Your task to perform on an android device: snooze an email in the gmail app Image 0: 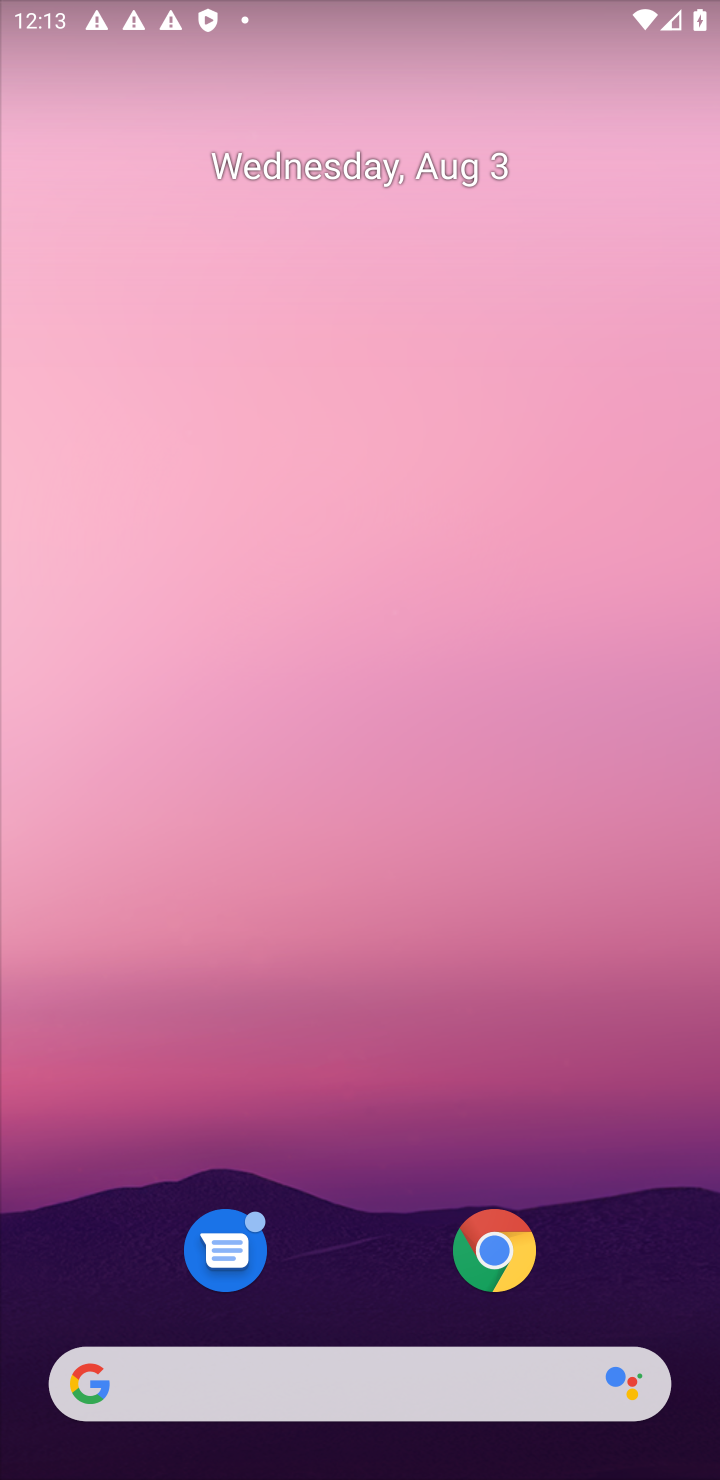
Step 0: drag from (380, 1258) to (356, 547)
Your task to perform on an android device: snooze an email in the gmail app Image 1: 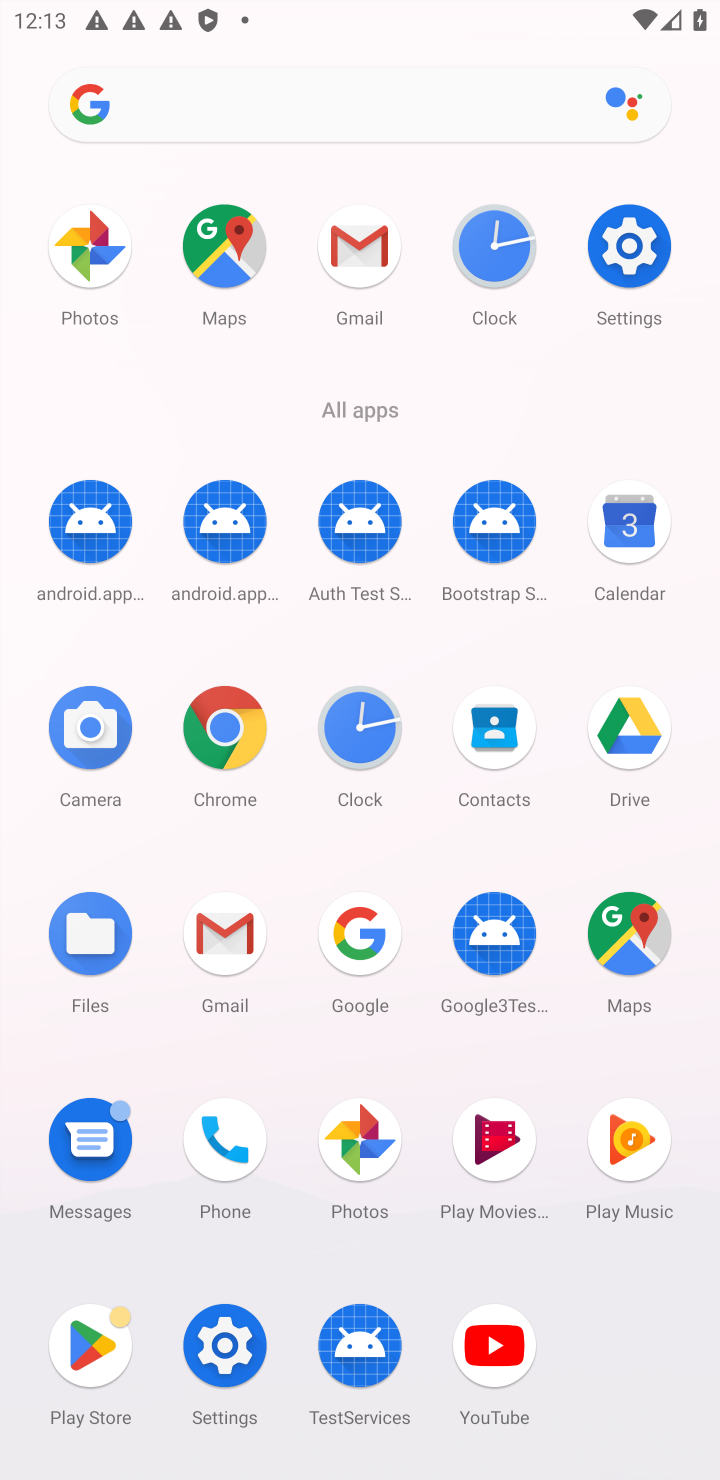
Step 1: click (219, 916)
Your task to perform on an android device: snooze an email in the gmail app Image 2: 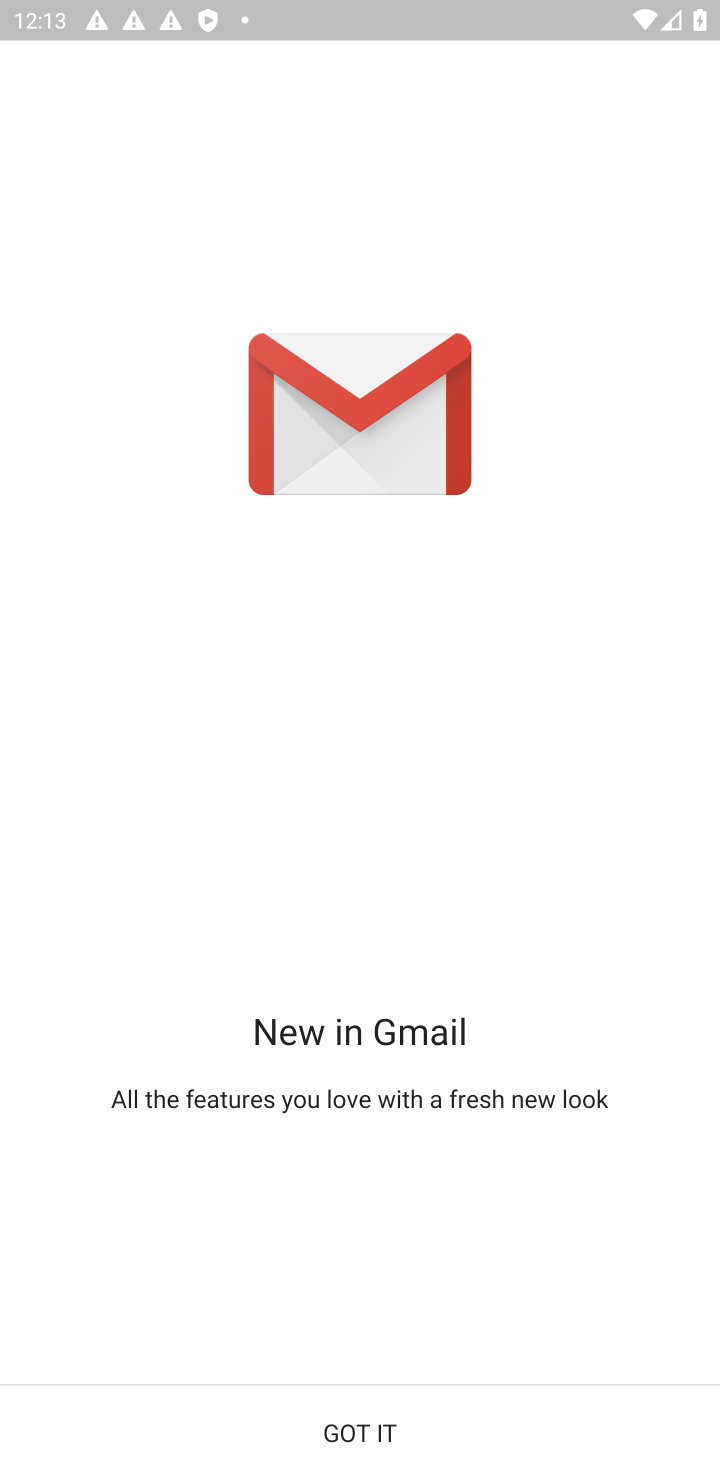
Step 2: click (507, 1446)
Your task to perform on an android device: snooze an email in the gmail app Image 3: 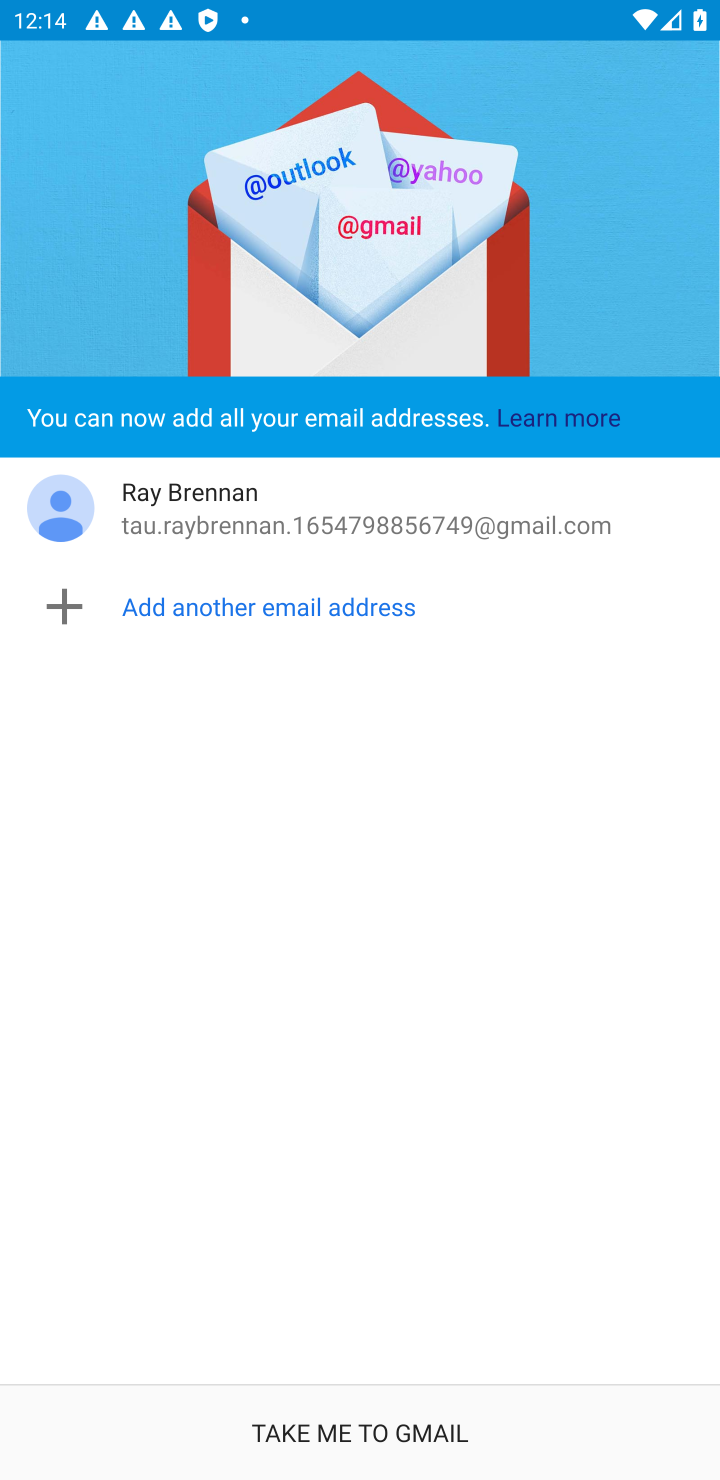
Step 3: click (400, 1447)
Your task to perform on an android device: snooze an email in the gmail app Image 4: 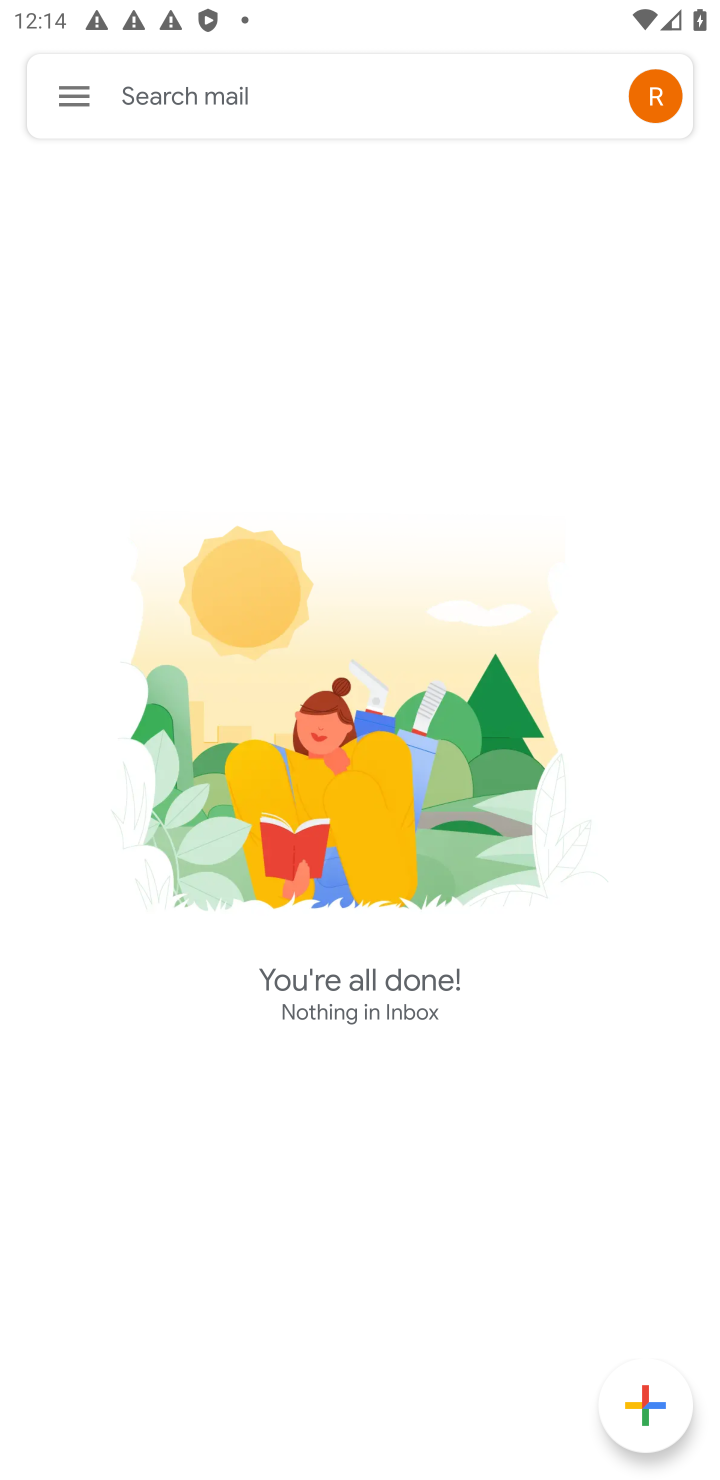
Step 4: click (75, 86)
Your task to perform on an android device: snooze an email in the gmail app Image 5: 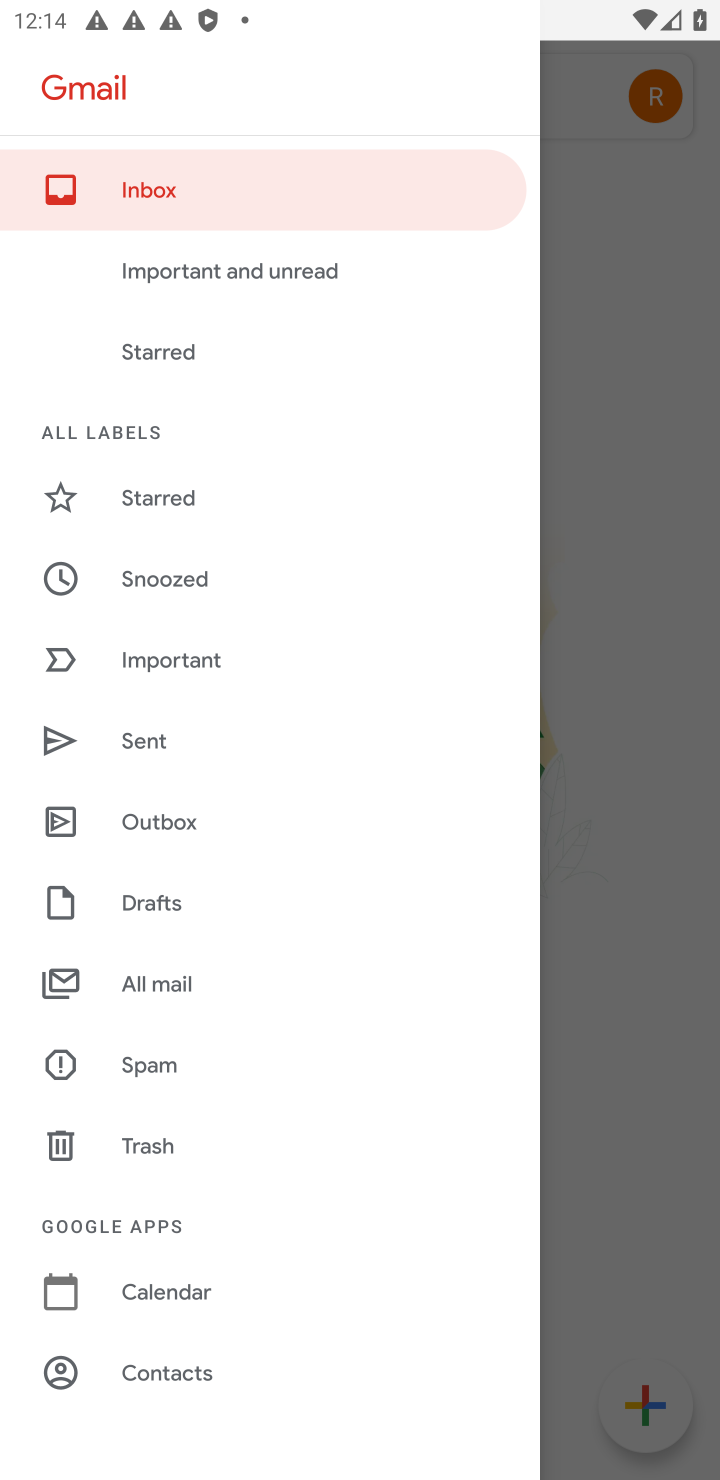
Step 5: click (178, 999)
Your task to perform on an android device: snooze an email in the gmail app Image 6: 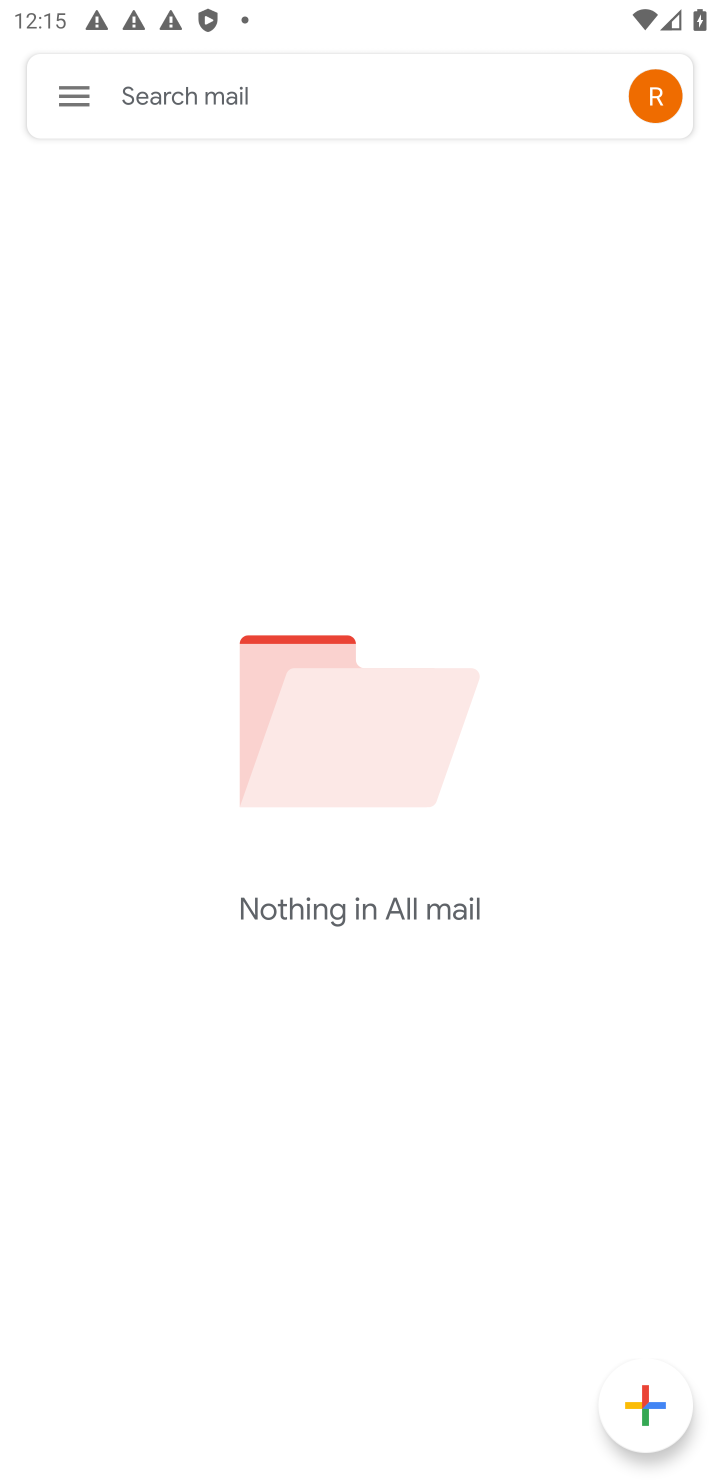
Step 6: click (75, 82)
Your task to perform on an android device: snooze an email in the gmail app Image 7: 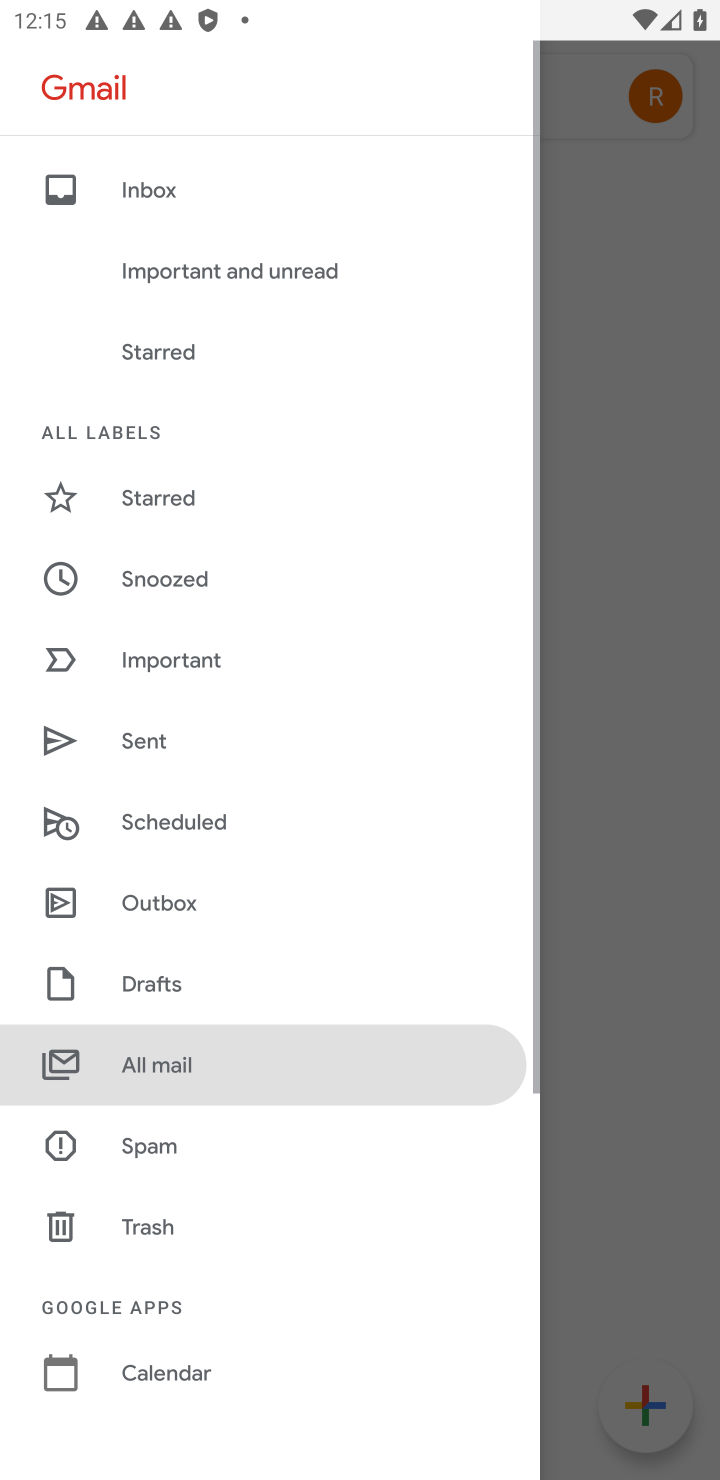
Step 7: task complete